Your task to perform on an android device: toggle location history Image 0: 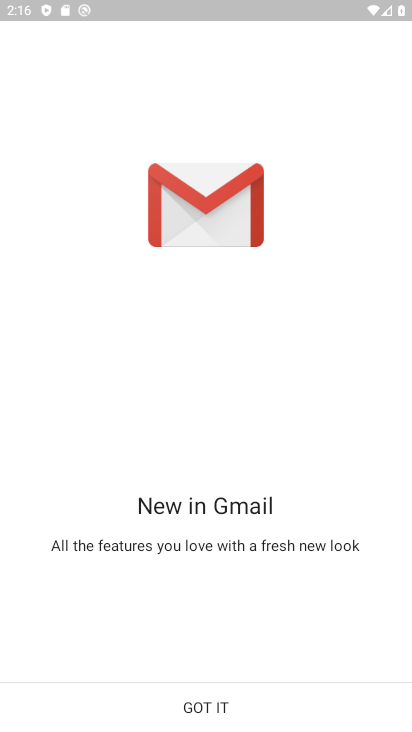
Step 0: press home button
Your task to perform on an android device: toggle location history Image 1: 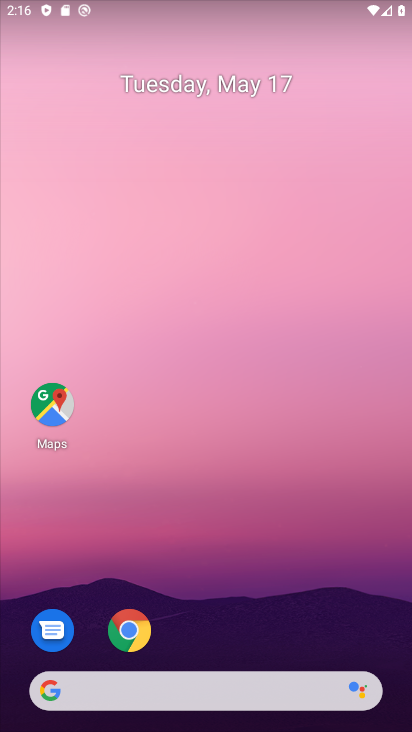
Step 1: drag from (209, 487) to (211, 274)
Your task to perform on an android device: toggle location history Image 2: 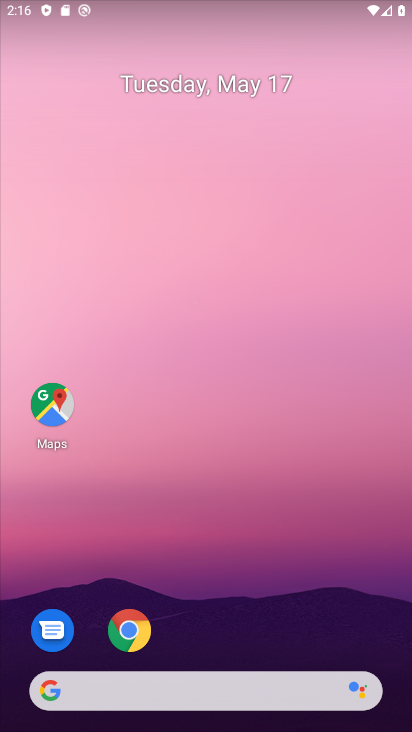
Step 2: drag from (201, 668) to (252, 255)
Your task to perform on an android device: toggle location history Image 3: 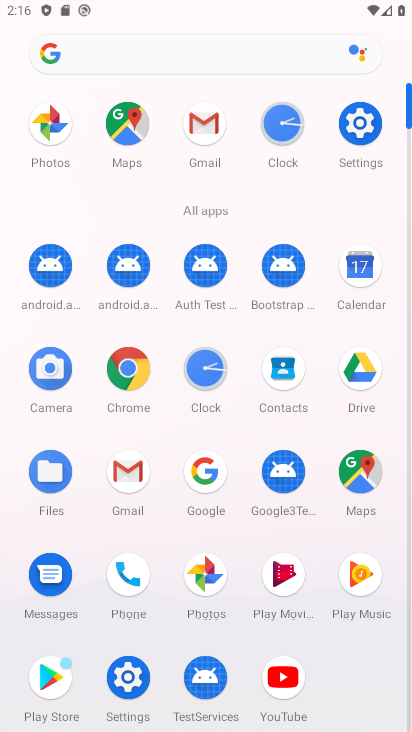
Step 3: click (353, 129)
Your task to perform on an android device: toggle location history Image 4: 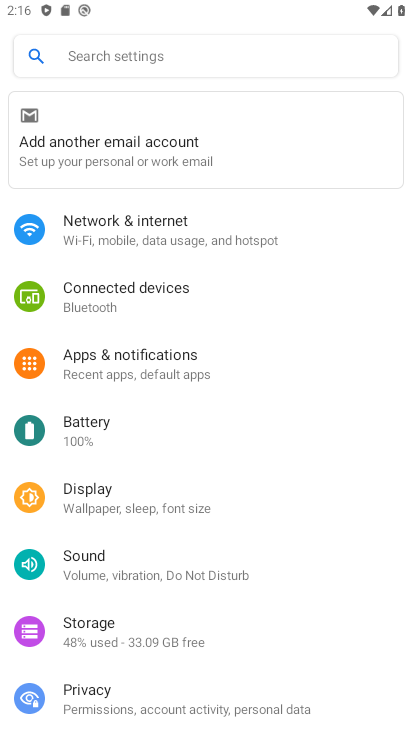
Step 4: drag from (95, 698) to (173, 343)
Your task to perform on an android device: toggle location history Image 5: 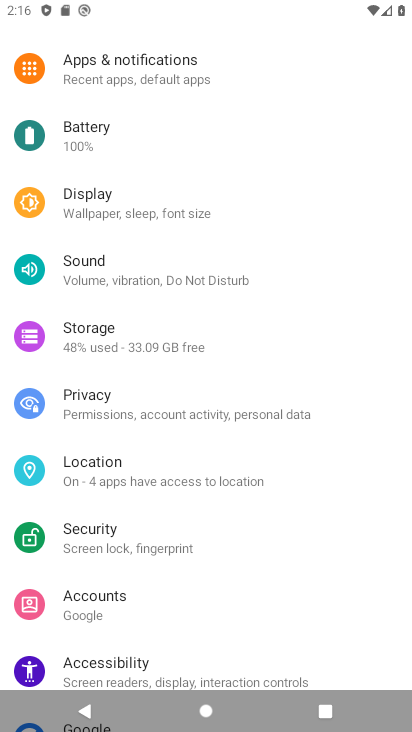
Step 5: click (98, 481)
Your task to perform on an android device: toggle location history Image 6: 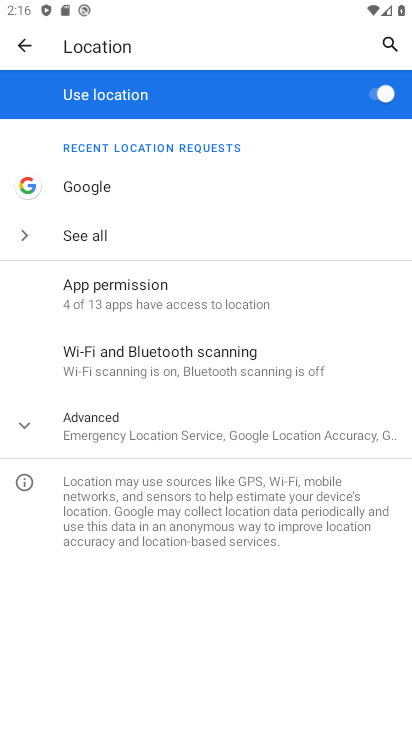
Step 6: click (94, 427)
Your task to perform on an android device: toggle location history Image 7: 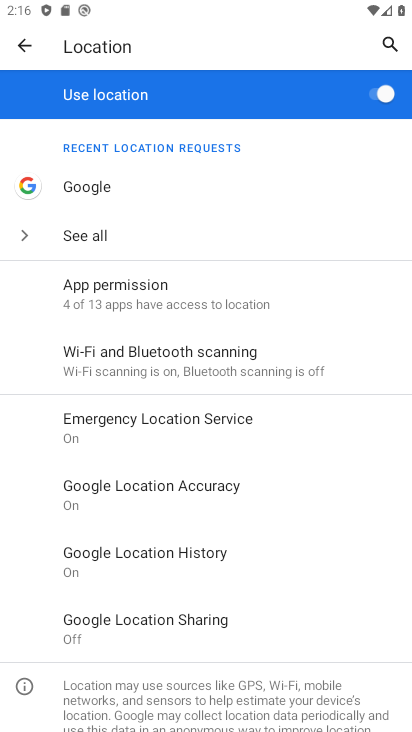
Step 7: click (170, 560)
Your task to perform on an android device: toggle location history Image 8: 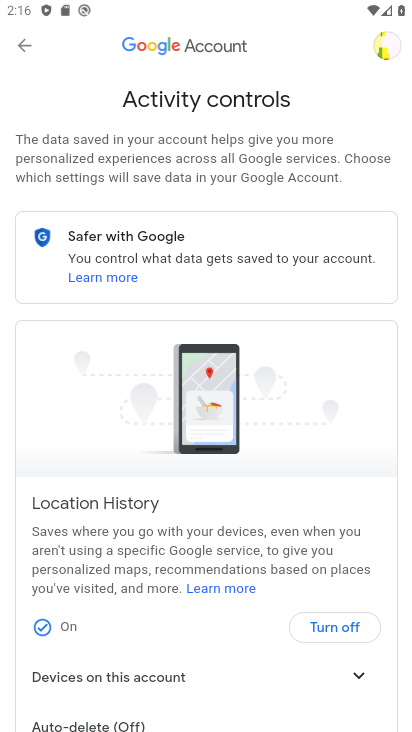
Step 8: click (334, 623)
Your task to perform on an android device: toggle location history Image 9: 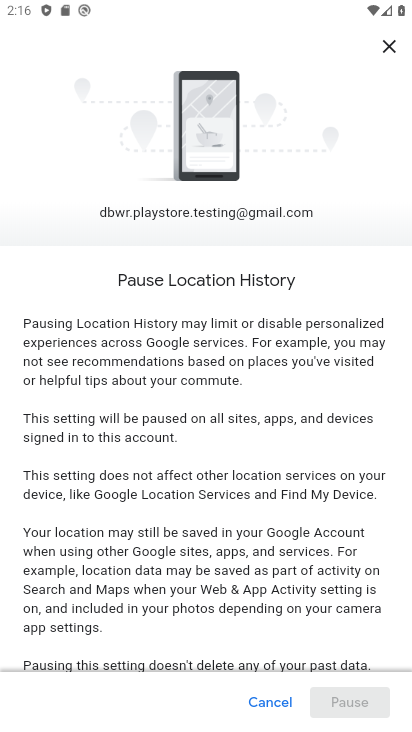
Step 9: drag from (321, 651) to (382, 325)
Your task to perform on an android device: toggle location history Image 10: 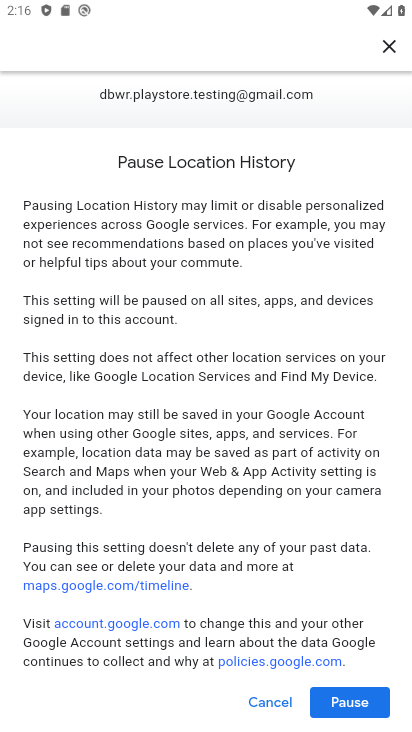
Step 10: click (326, 712)
Your task to perform on an android device: toggle location history Image 11: 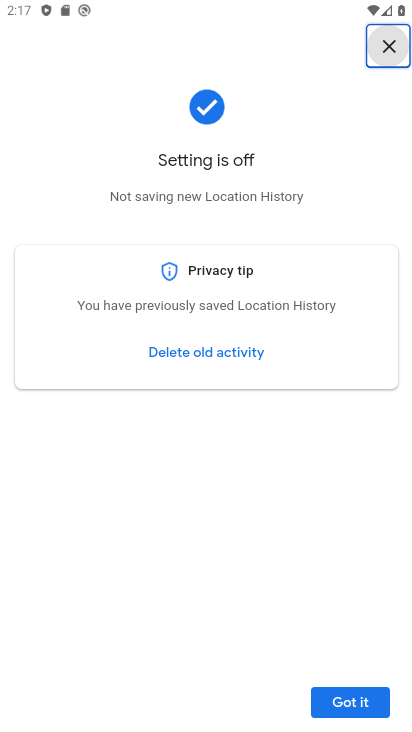
Step 11: click (327, 711)
Your task to perform on an android device: toggle location history Image 12: 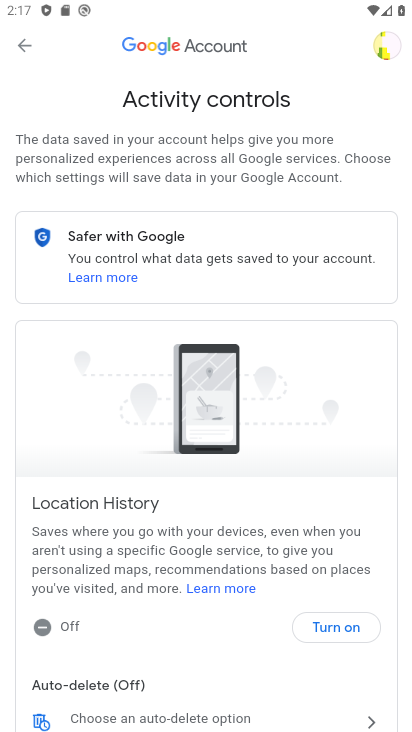
Step 12: task complete